Your task to perform on an android device: toggle sleep mode Image 0: 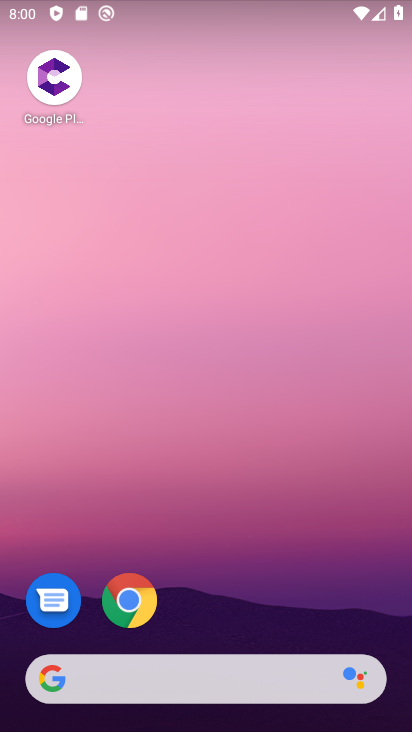
Step 0: drag from (241, 580) to (214, 39)
Your task to perform on an android device: toggle sleep mode Image 1: 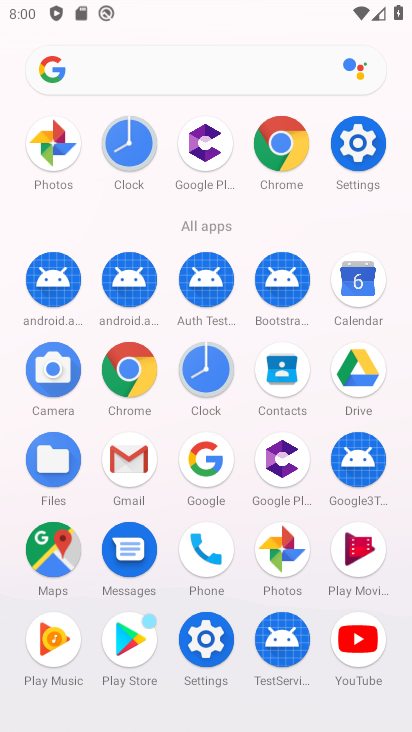
Step 1: drag from (5, 547) to (30, 288)
Your task to perform on an android device: toggle sleep mode Image 2: 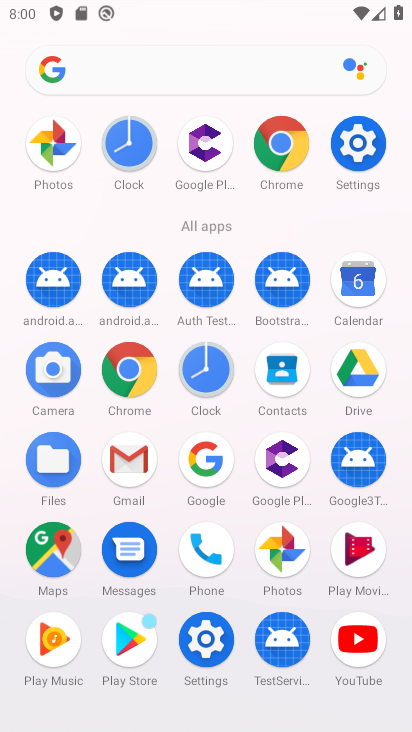
Step 2: click (207, 635)
Your task to perform on an android device: toggle sleep mode Image 3: 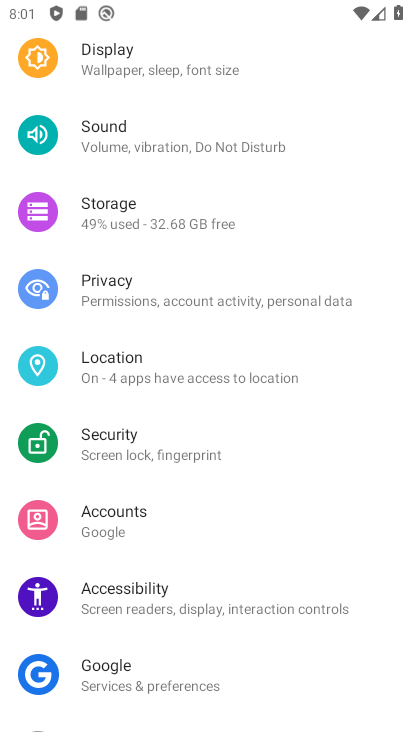
Step 3: drag from (275, 173) to (275, 552)
Your task to perform on an android device: toggle sleep mode Image 4: 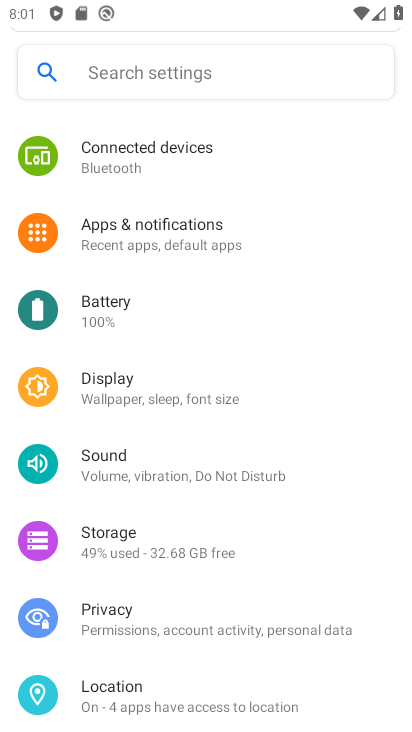
Step 4: click (194, 393)
Your task to perform on an android device: toggle sleep mode Image 5: 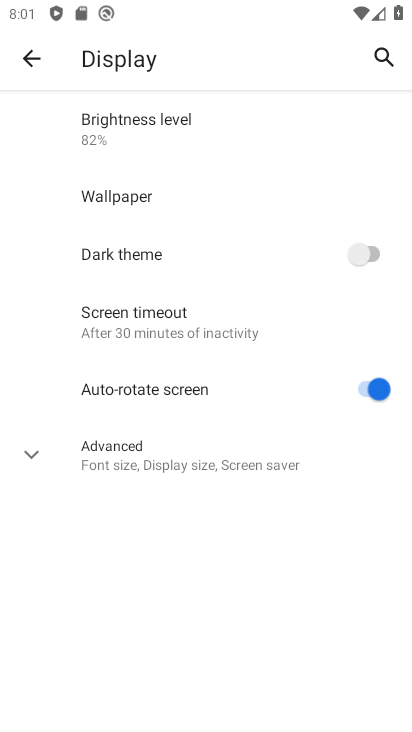
Step 5: click (55, 450)
Your task to perform on an android device: toggle sleep mode Image 6: 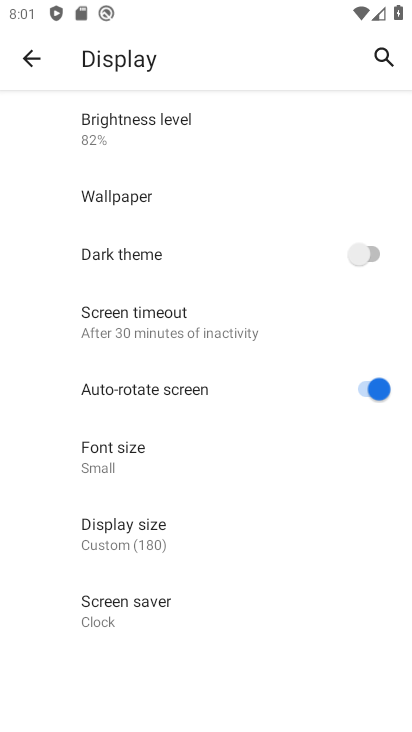
Step 6: task complete